Your task to perform on an android device: all mails in gmail Image 0: 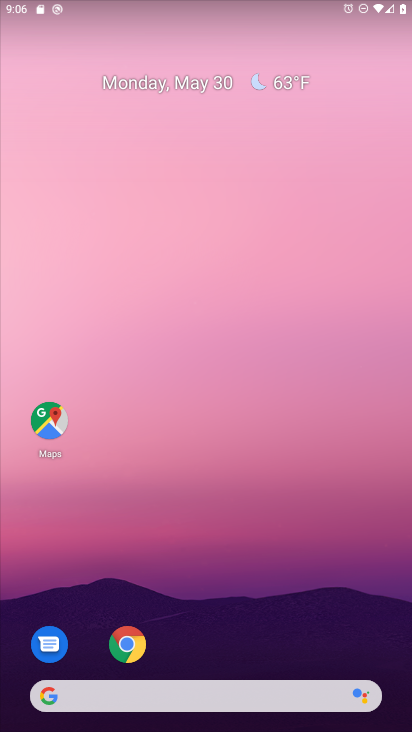
Step 0: drag from (196, 637) to (190, 19)
Your task to perform on an android device: all mails in gmail Image 1: 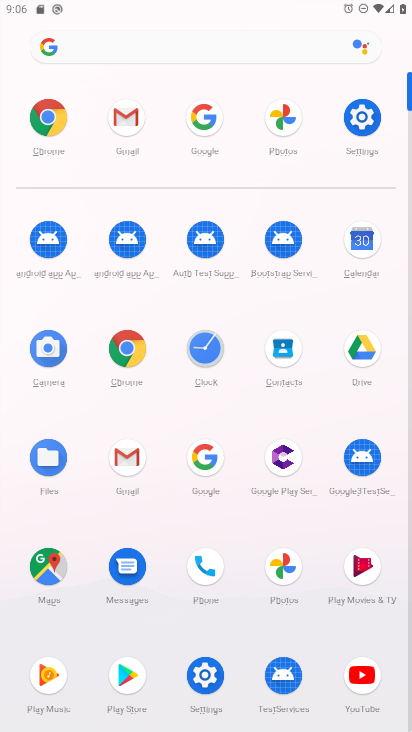
Step 1: click (128, 118)
Your task to perform on an android device: all mails in gmail Image 2: 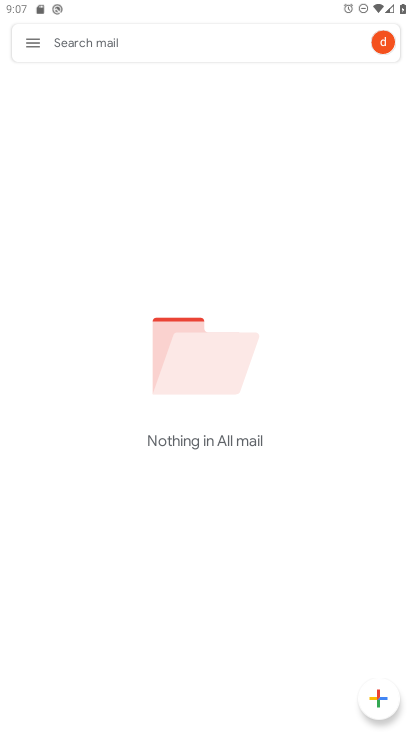
Step 2: task complete